Your task to perform on an android device: Open ESPN.com Image 0: 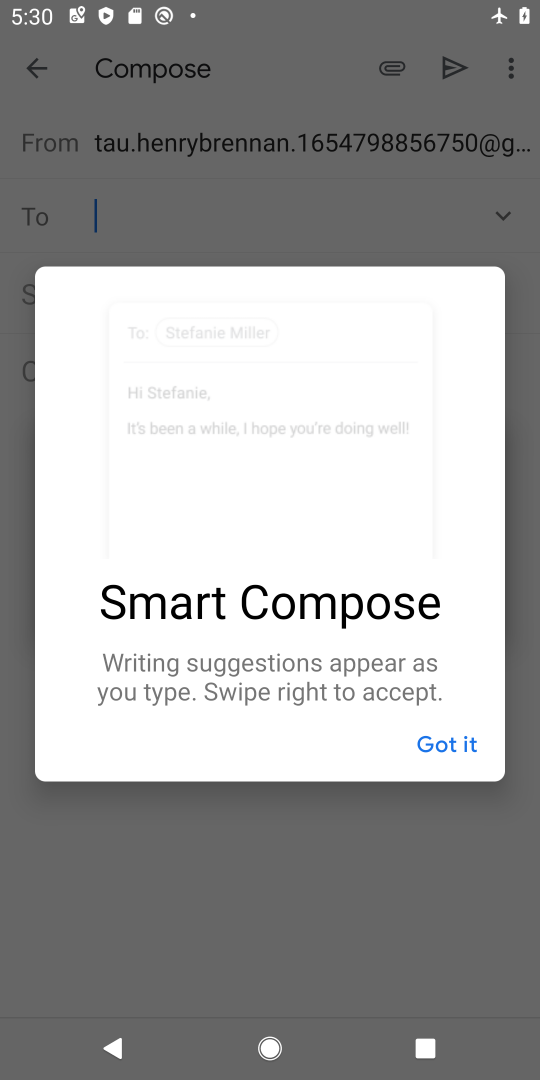
Step 0: press home button
Your task to perform on an android device: Open ESPN.com Image 1: 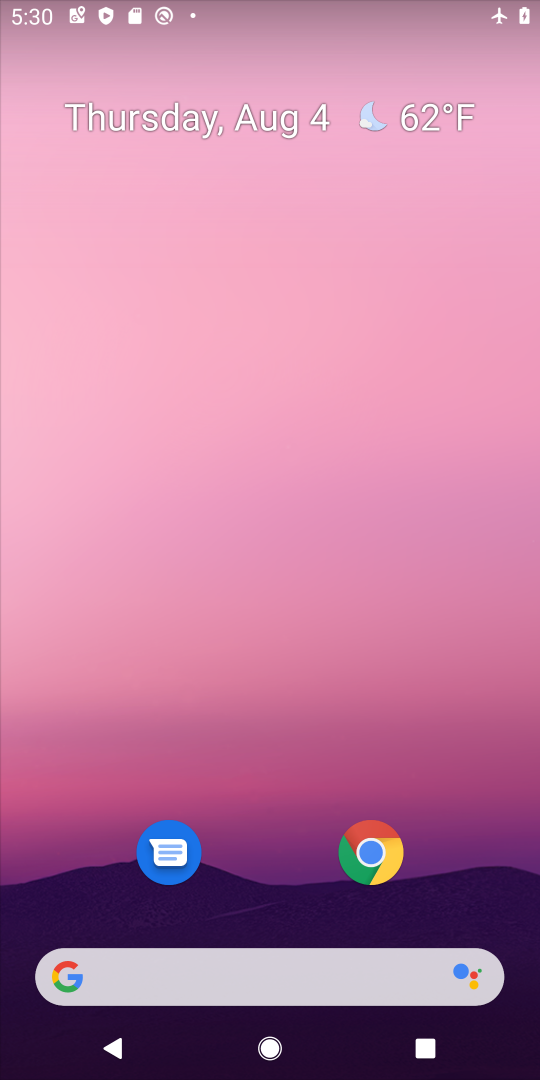
Step 1: click (372, 857)
Your task to perform on an android device: Open ESPN.com Image 2: 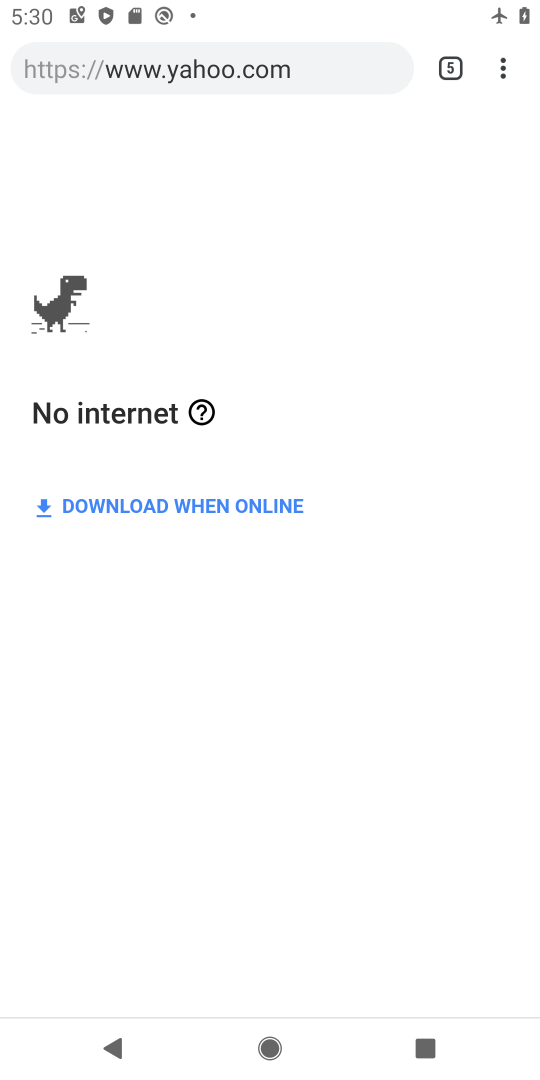
Step 2: click (501, 74)
Your task to perform on an android device: Open ESPN.com Image 3: 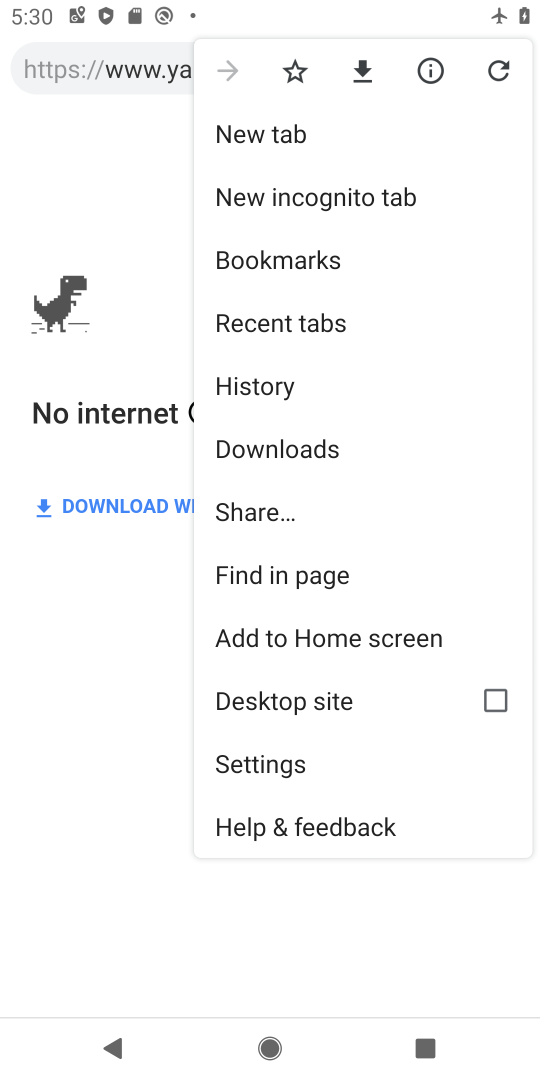
Step 3: click (282, 130)
Your task to perform on an android device: Open ESPN.com Image 4: 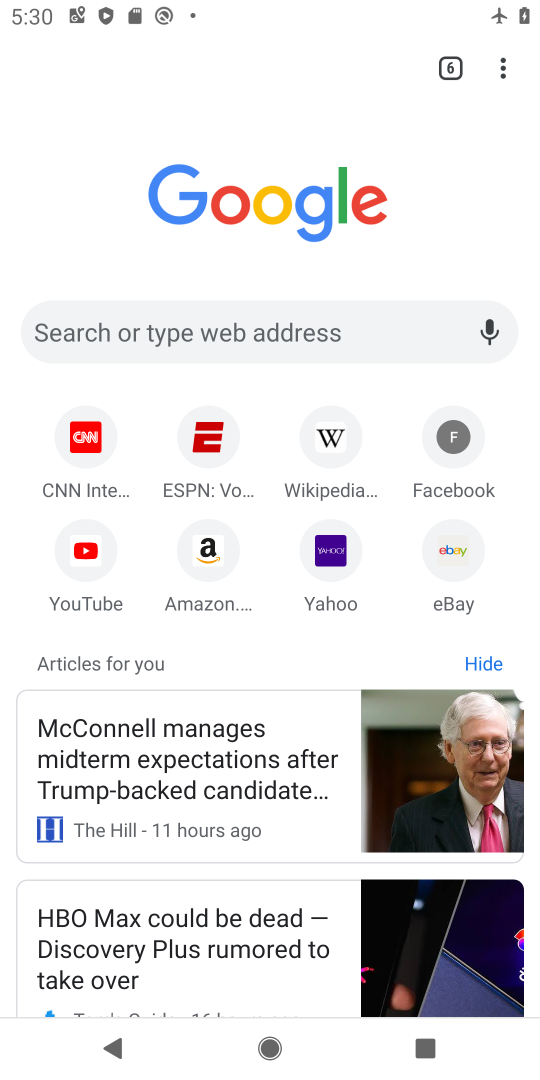
Step 4: click (202, 453)
Your task to perform on an android device: Open ESPN.com Image 5: 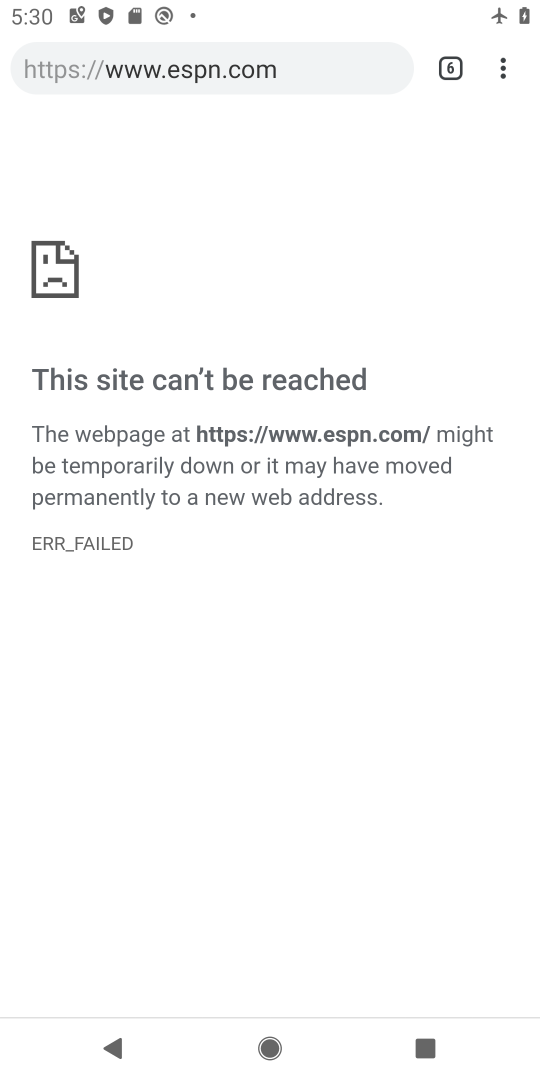
Step 5: task complete